Your task to perform on an android device: all mails in gmail Image 0: 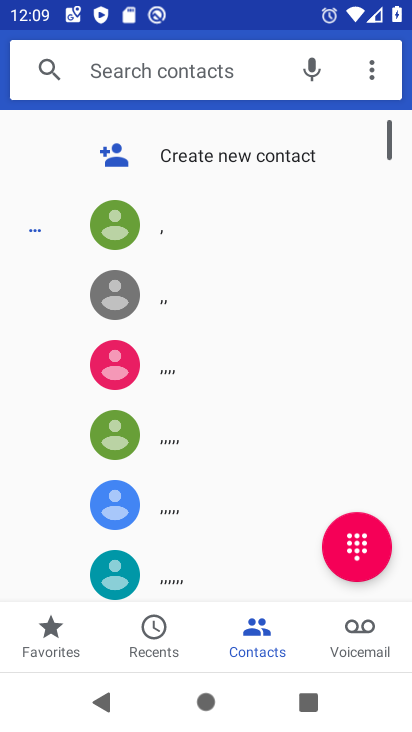
Step 0: press home button
Your task to perform on an android device: all mails in gmail Image 1: 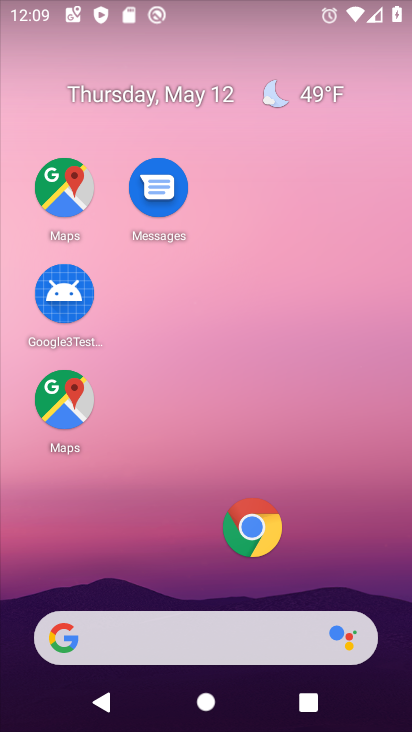
Step 1: drag from (241, 602) to (381, 6)
Your task to perform on an android device: all mails in gmail Image 2: 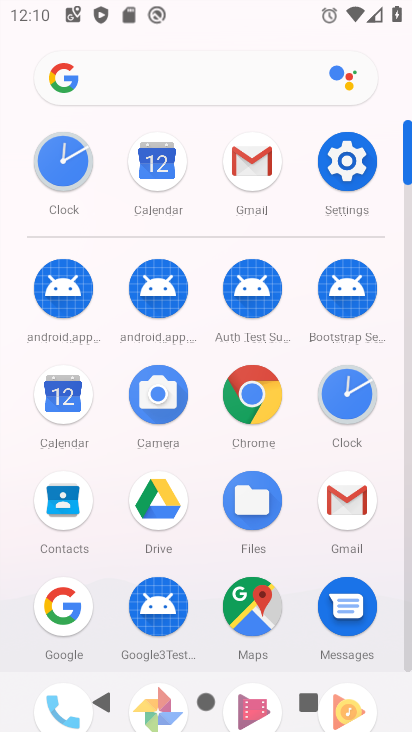
Step 2: click (334, 497)
Your task to perform on an android device: all mails in gmail Image 3: 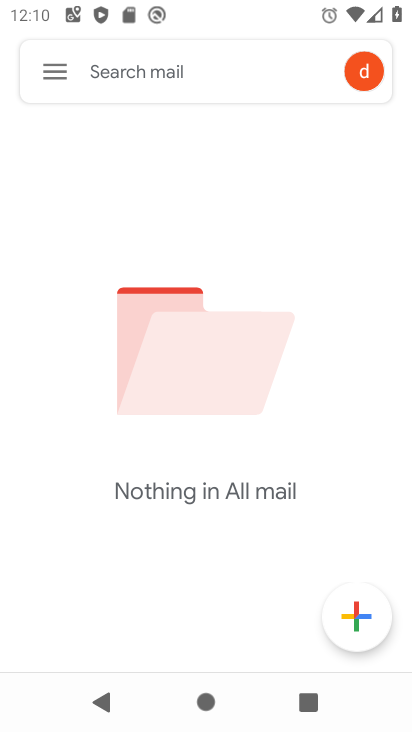
Step 3: click (52, 73)
Your task to perform on an android device: all mails in gmail Image 4: 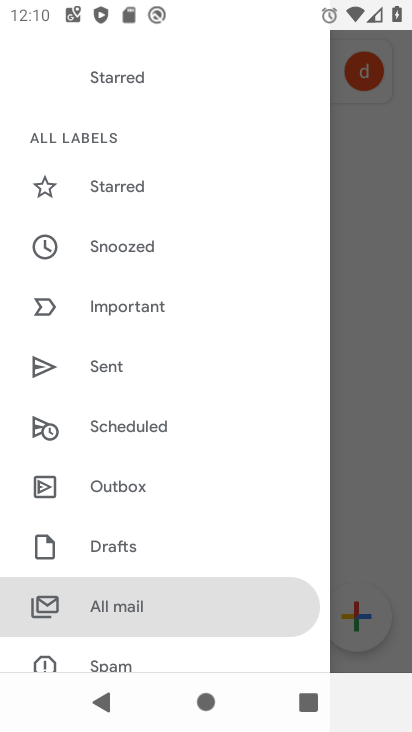
Step 4: click (144, 571)
Your task to perform on an android device: all mails in gmail Image 5: 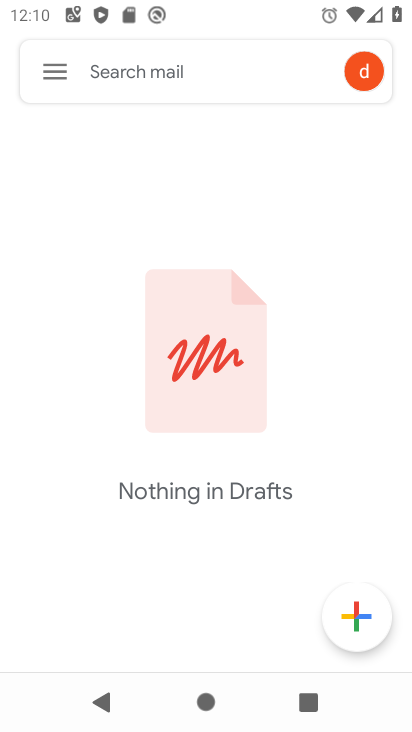
Step 5: task complete